Your task to perform on an android device: toggle improve location accuracy Image 0: 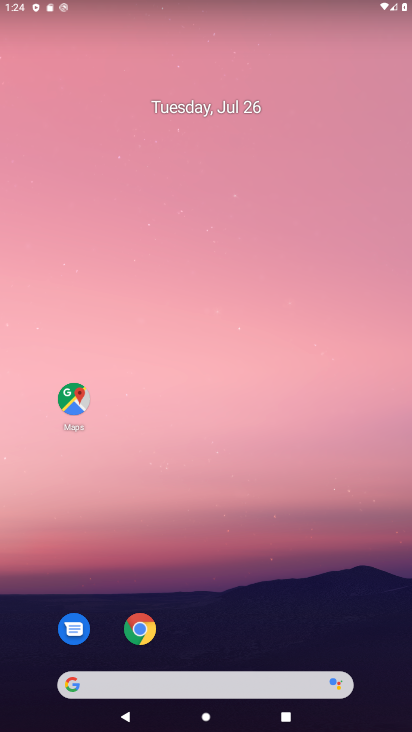
Step 0: drag from (183, 374) to (195, 2)
Your task to perform on an android device: toggle improve location accuracy Image 1: 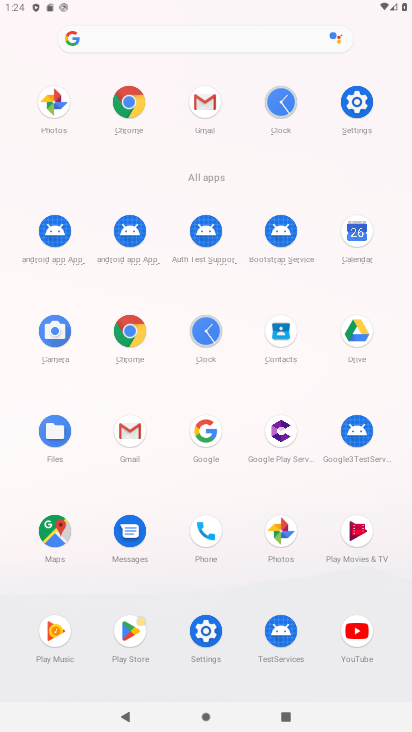
Step 1: click (343, 108)
Your task to perform on an android device: toggle improve location accuracy Image 2: 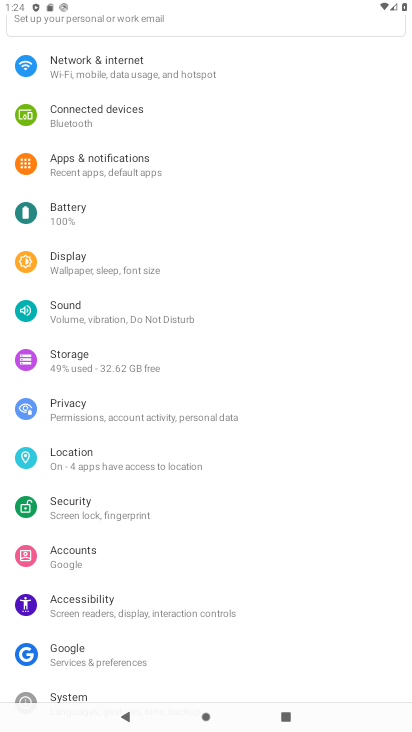
Step 2: click (111, 458)
Your task to perform on an android device: toggle improve location accuracy Image 3: 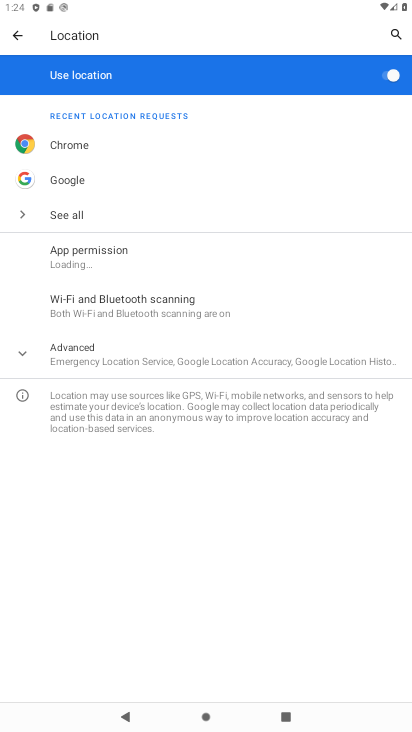
Step 3: click (189, 359)
Your task to perform on an android device: toggle improve location accuracy Image 4: 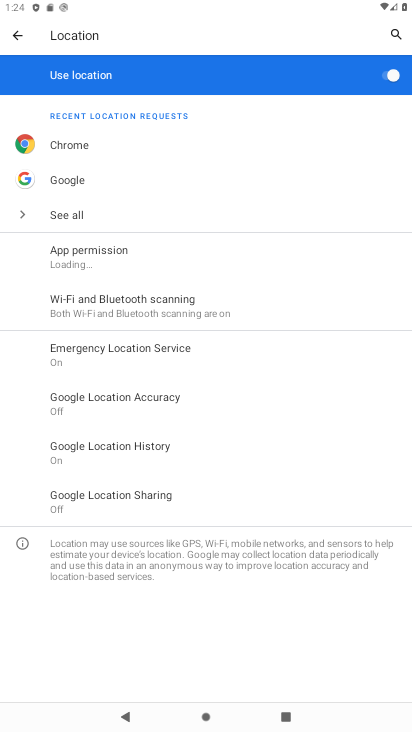
Step 4: click (160, 393)
Your task to perform on an android device: toggle improve location accuracy Image 5: 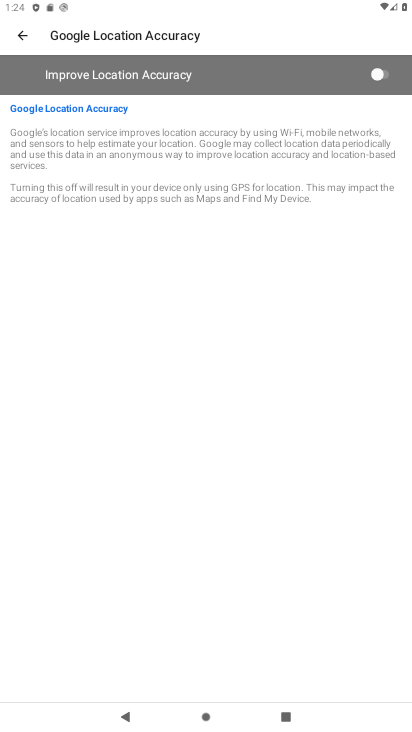
Step 5: click (381, 75)
Your task to perform on an android device: toggle improve location accuracy Image 6: 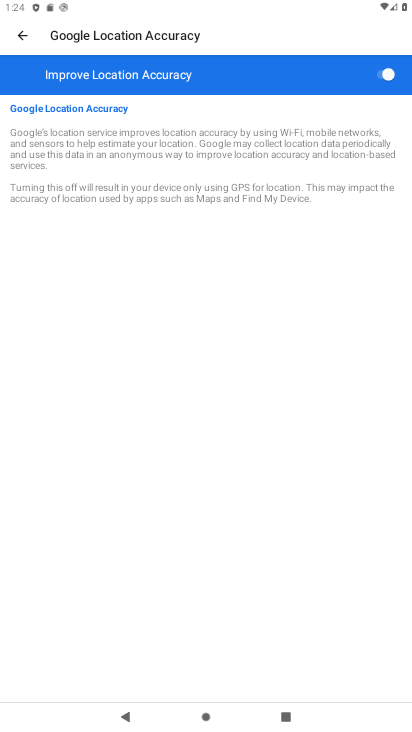
Step 6: task complete